Your task to perform on an android device: Open ESPN.com Image 0: 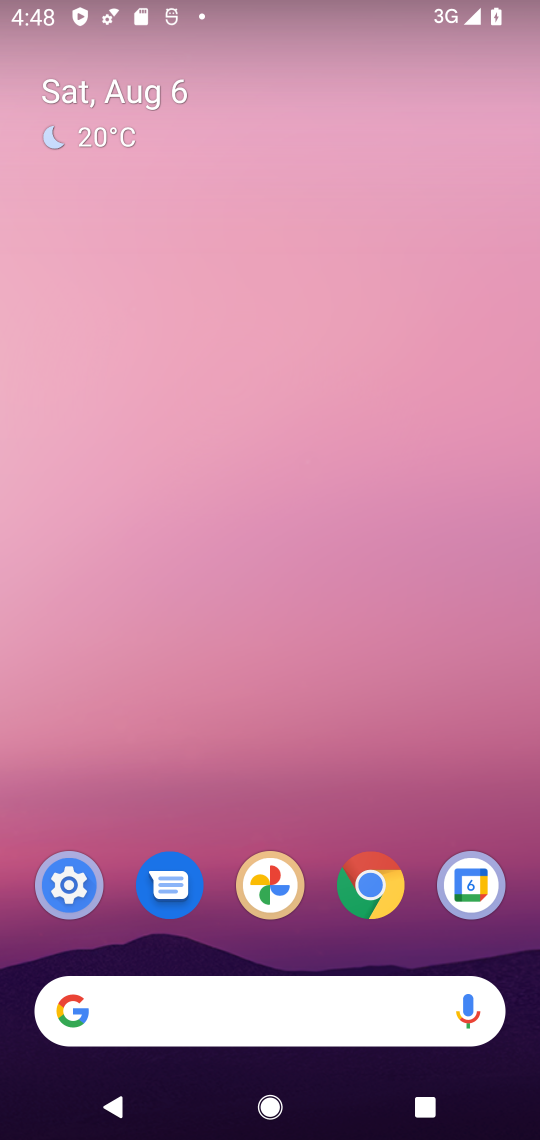
Step 0: drag from (423, 931) to (228, 122)
Your task to perform on an android device: Open ESPN.com Image 1: 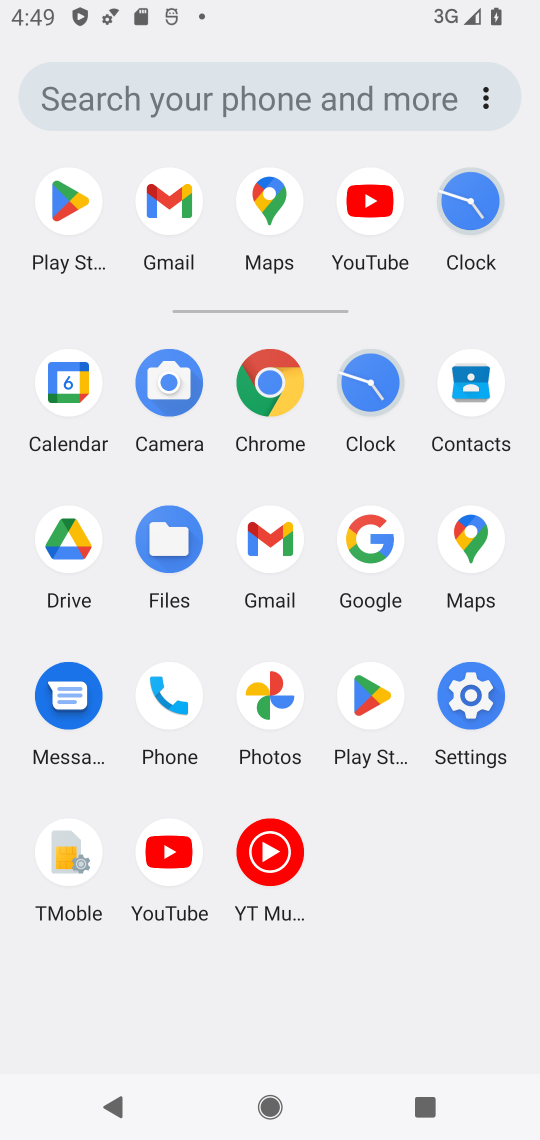
Step 1: click (367, 540)
Your task to perform on an android device: Open ESPN.com Image 2: 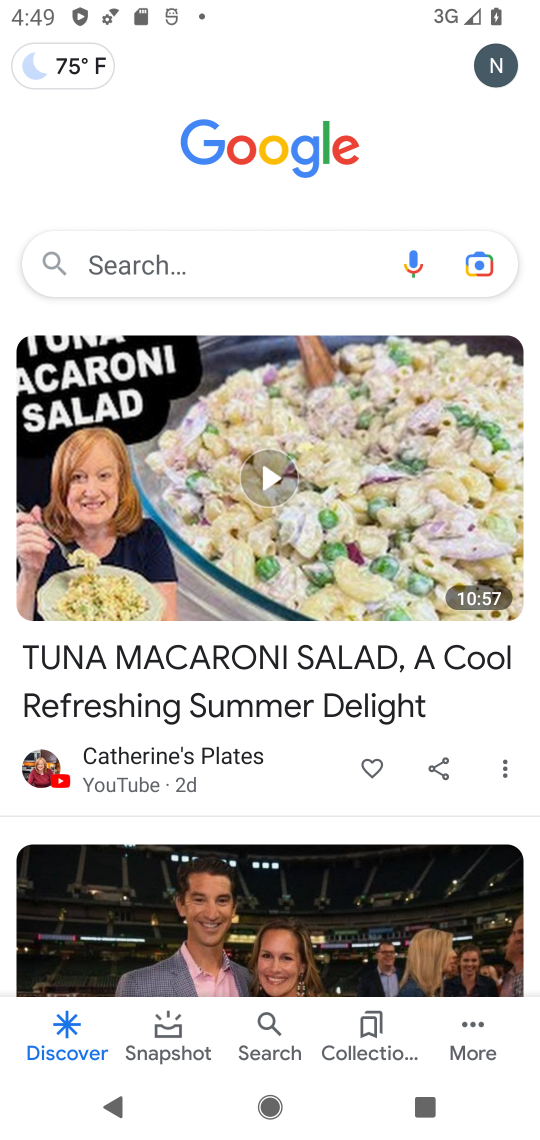
Step 2: click (137, 278)
Your task to perform on an android device: Open ESPN.com Image 3: 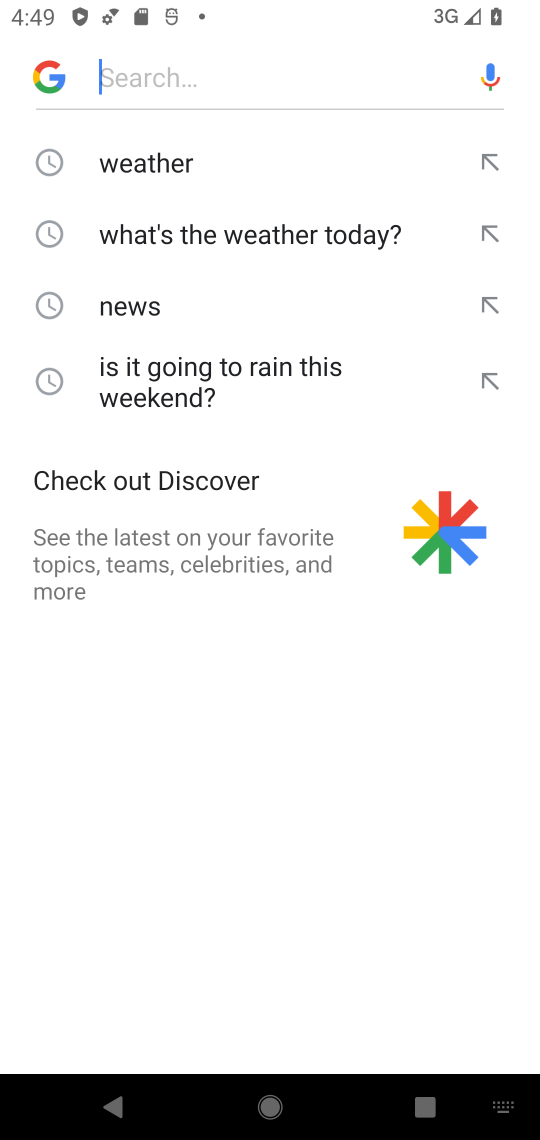
Step 3: type "ESPN.com"
Your task to perform on an android device: Open ESPN.com Image 4: 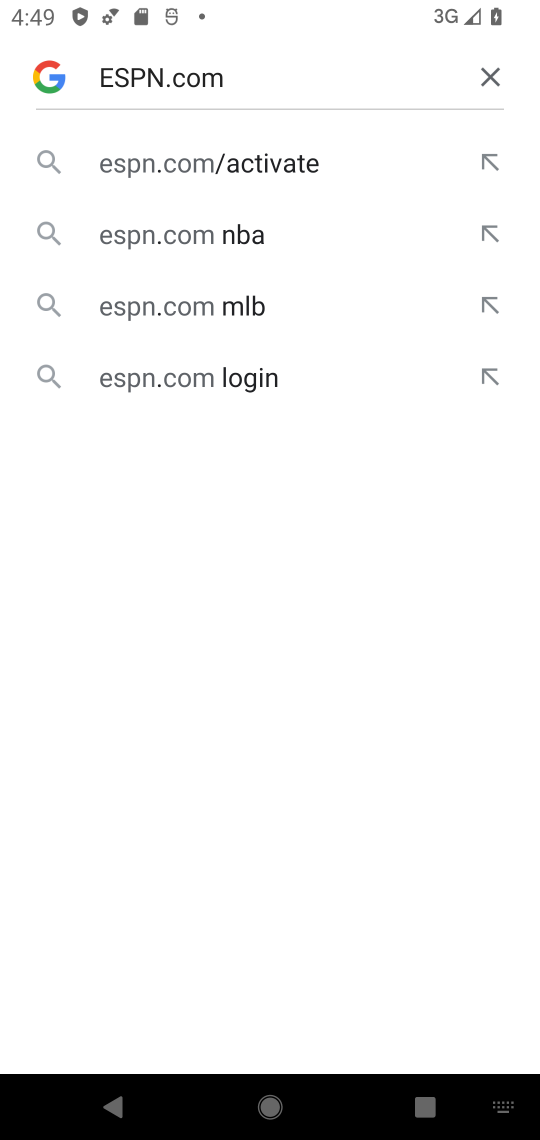
Step 4: click (184, 240)
Your task to perform on an android device: Open ESPN.com Image 5: 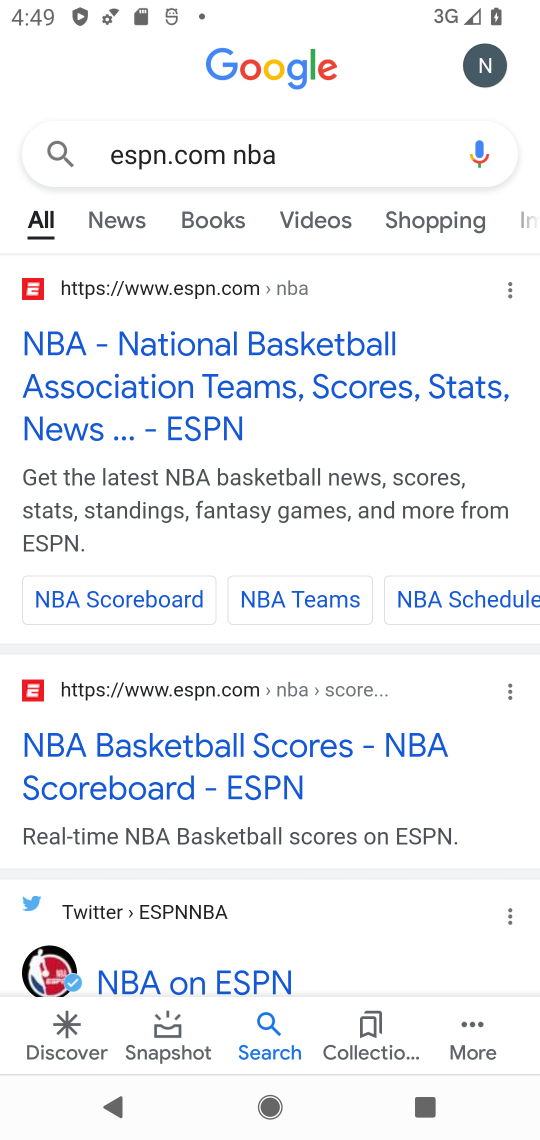
Step 5: task complete